Your task to perform on an android device: turn on bluetooth scan Image 0: 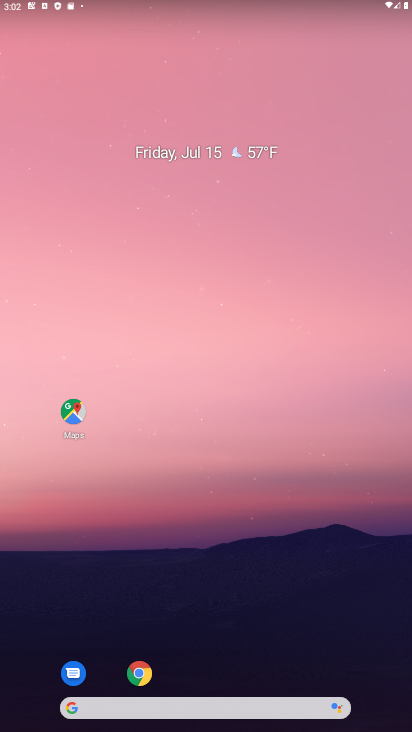
Step 0: drag from (381, 653) to (348, 162)
Your task to perform on an android device: turn on bluetooth scan Image 1: 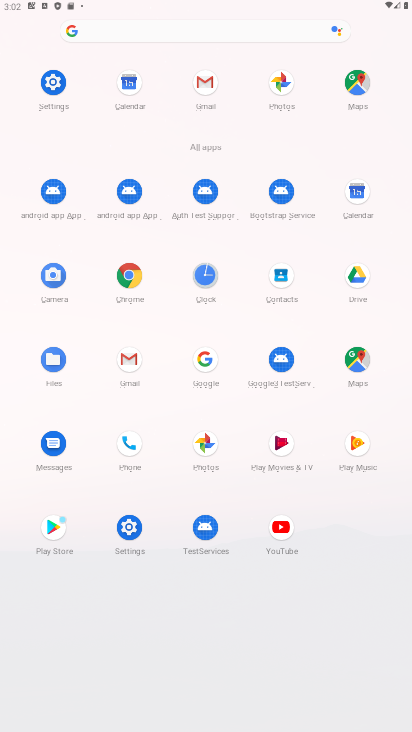
Step 1: click (127, 525)
Your task to perform on an android device: turn on bluetooth scan Image 2: 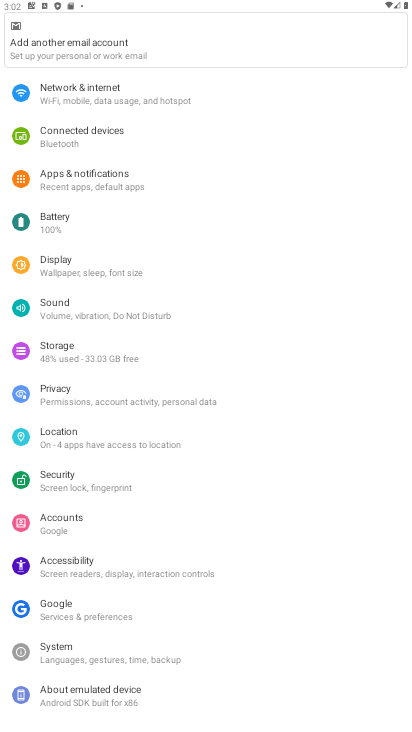
Step 2: click (66, 435)
Your task to perform on an android device: turn on bluetooth scan Image 3: 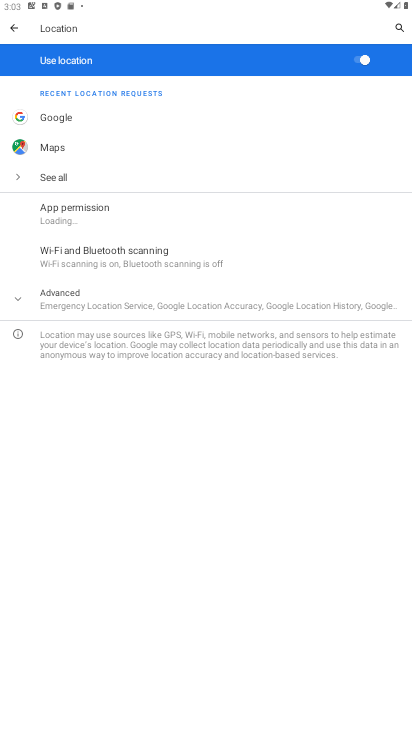
Step 3: click (89, 256)
Your task to perform on an android device: turn on bluetooth scan Image 4: 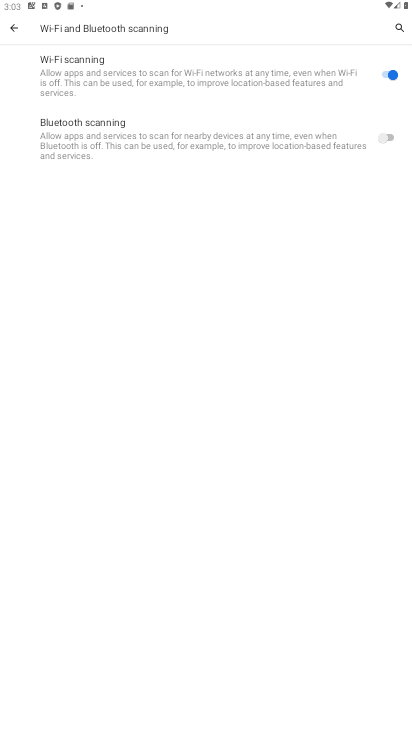
Step 4: click (390, 136)
Your task to perform on an android device: turn on bluetooth scan Image 5: 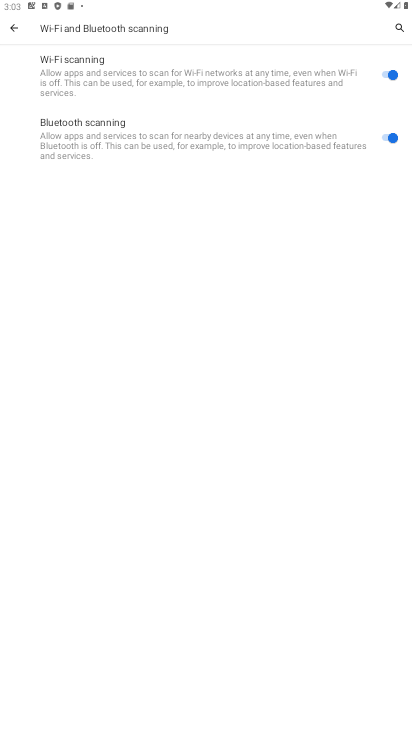
Step 5: task complete